Your task to perform on an android device: Find coffee shops on Maps Image 0: 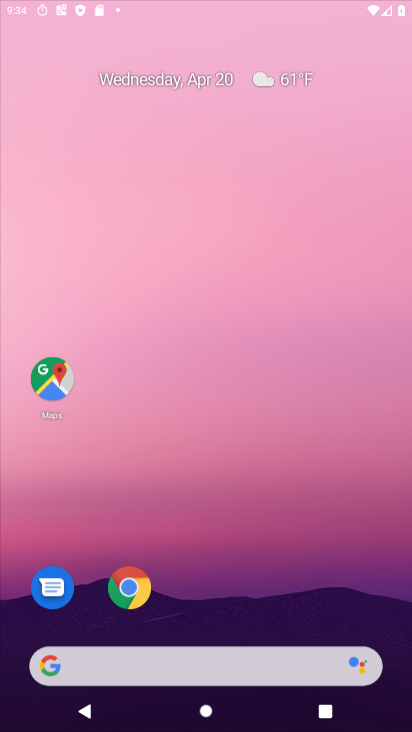
Step 0: click (90, 49)
Your task to perform on an android device: Find coffee shops on Maps Image 1: 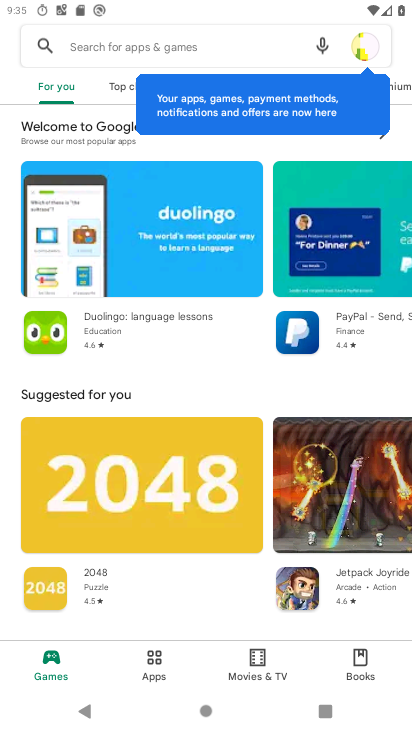
Step 1: press back button
Your task to perform on an android device: Find coffee shops on Maps Image 2: 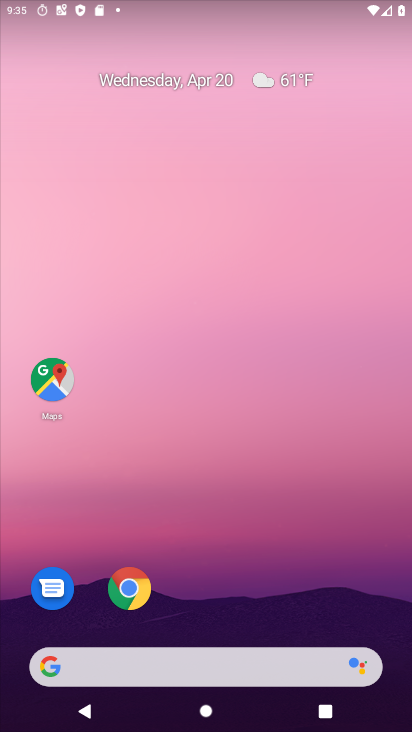
Step 2: drag from (294, 546) to (94, 21)
Your task to perform on an android device: Find coffee shops on Maps Image 3: 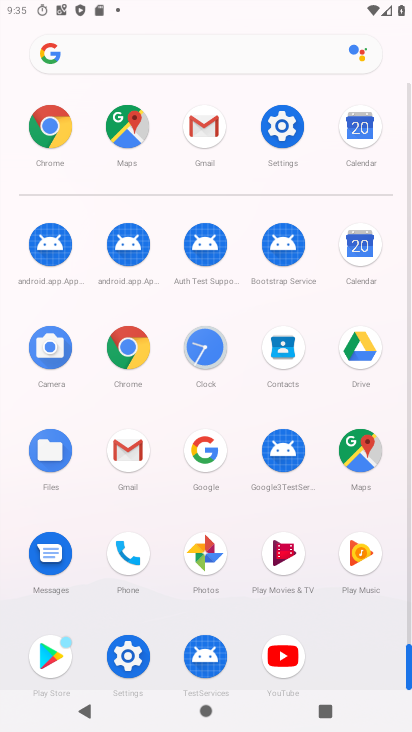
Step 3: drag from (8, 574) to (1, 368)
Your task to perform on an android device: Find coffee shops on Maps Image 4: 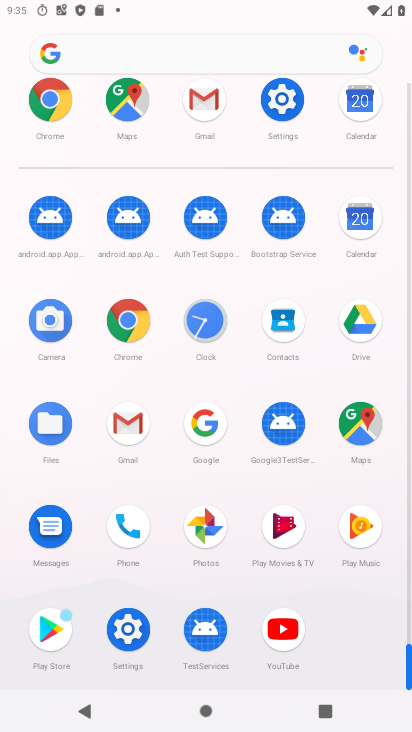
Step 4: click (359, 419)
Your task to perform on an android device: Find coffee shops on Maps Image 5: 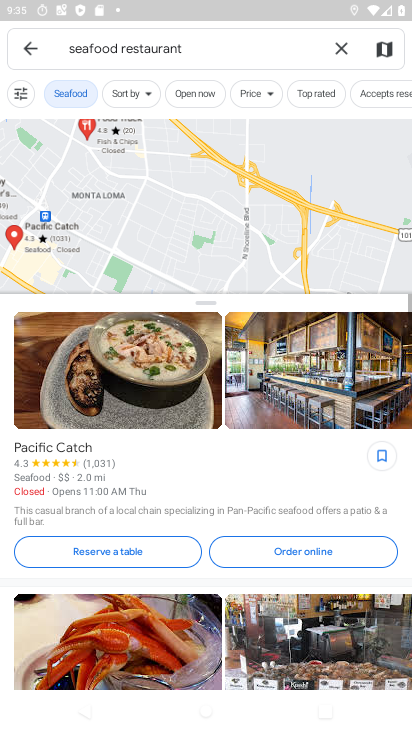
Step 5: click (337, 46)
Your task to perform on an android device: Find coffee shops on Maps Image 6: 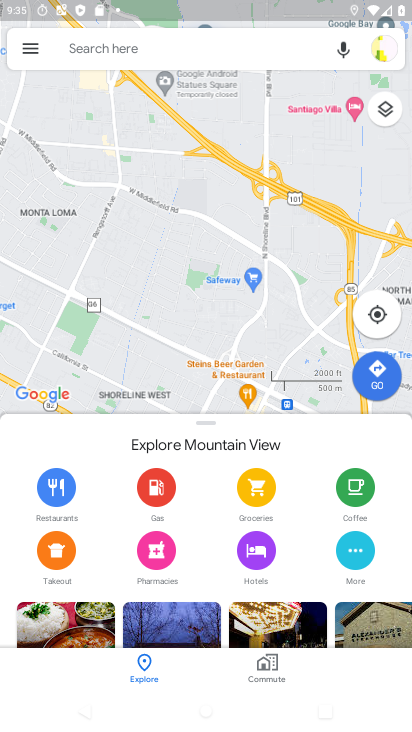
Step 6: click (216, 44)
Your task to perform on an android device: Find coffee shops on Maps Image 7: 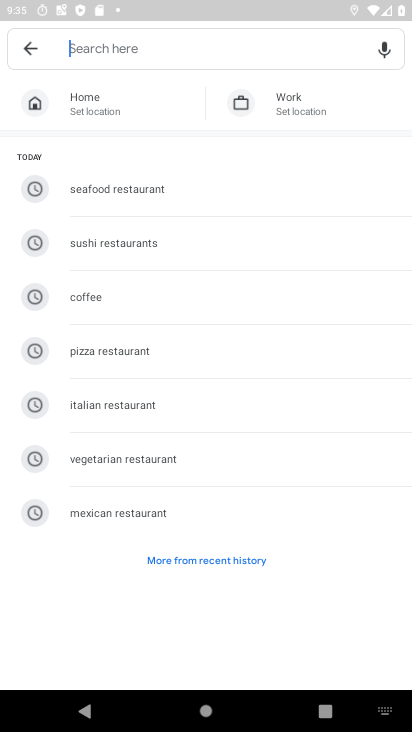
Step 7: click (127, 292)
Your task to perform on an android device: Find coffee shops on Maps Image 8: 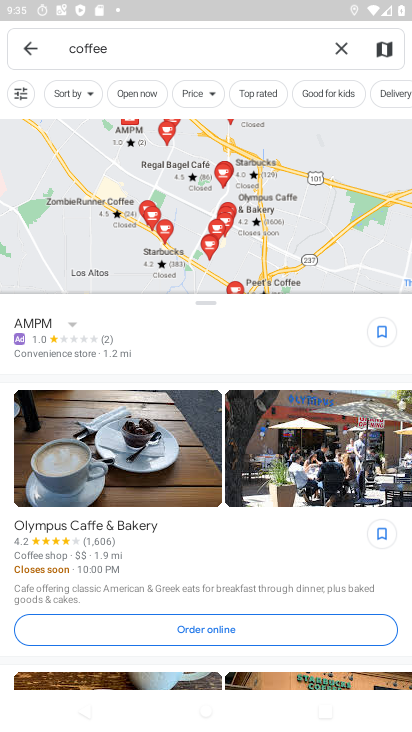
Step 8: task complete